Your task to perform on an android device: Open display settings Image 0: 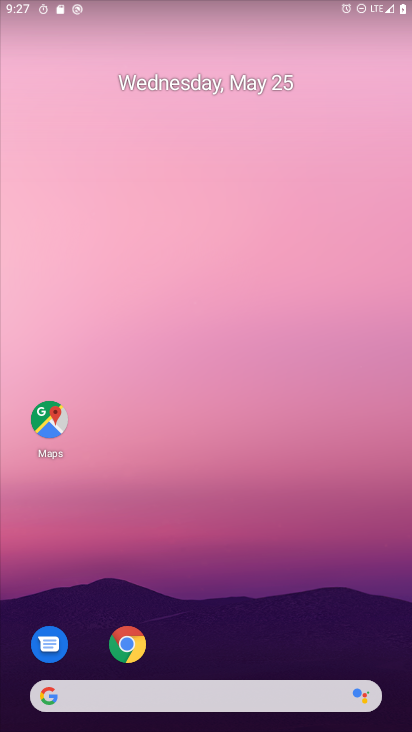
Step 0: drag from (320, 604) to (224, 47)
Your task to perform on an android device: Open display settings Image 1: 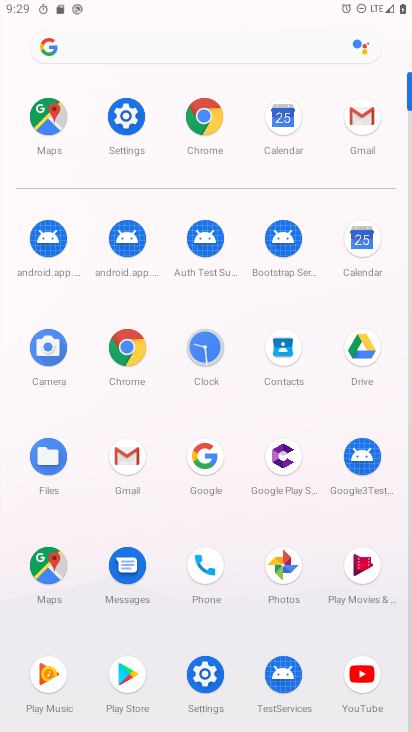
Step 1: click (203, 669)
Your task to perform on an android device: Open display settings Image 2: 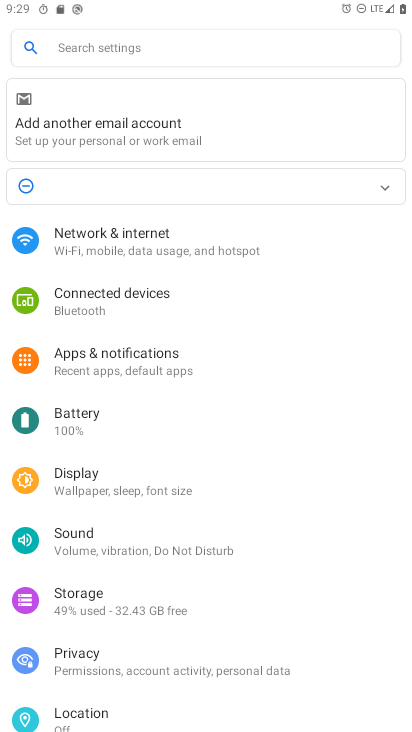
Step 2: click (78, 498)
Your task to perform on an android device: Open display settings Image 3: 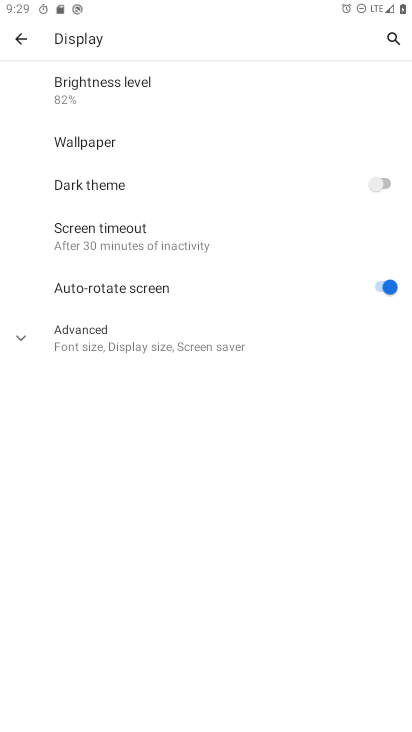
Step 3: task complete